Your task to perform on an android device: Open Wikipedia Image 0: 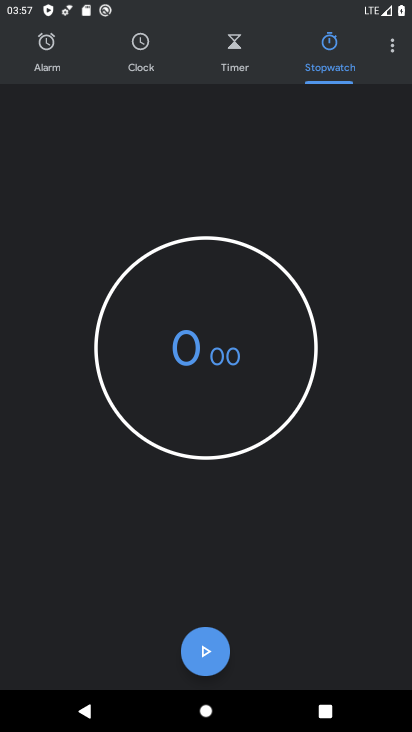
Step 0: drag from (220, 558) to (272, 228)
Your task to perform on an android device: Open Wikipedia Image 1: 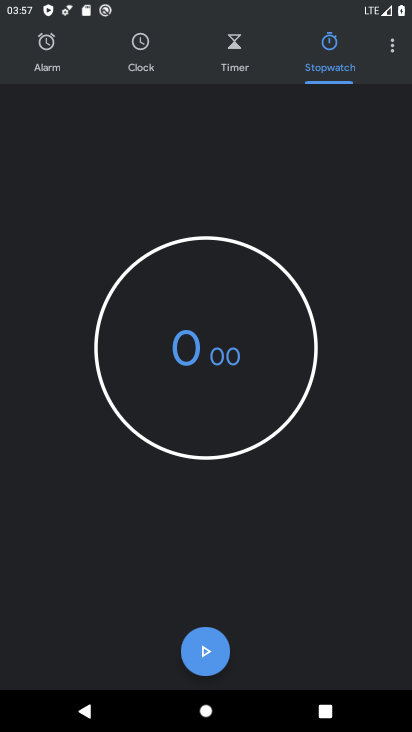
Step 1: click (394, 57)
Your task to perform on an android device: Open Wikipedia Image 2: 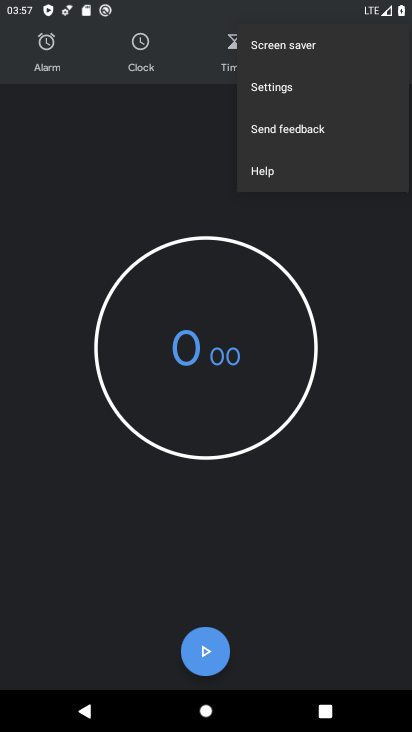
Step 2: press home button
Your task to perform on an android device: Open Wikipedia Image 3: 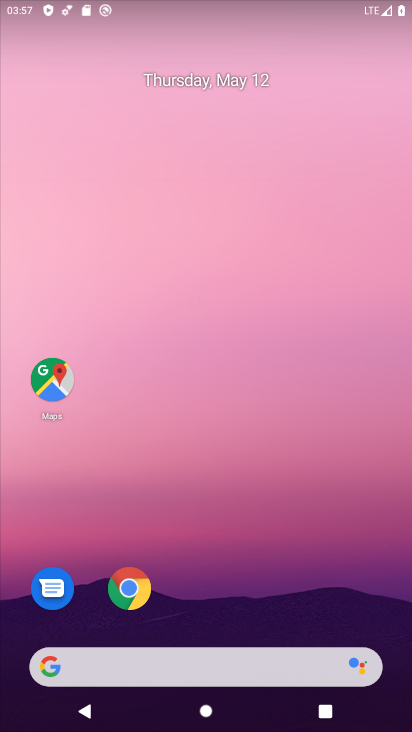
Step 3: drag from (214, 651) to (264, 186)
Your task to perform on an android device: Open Wikipedia Image 4: 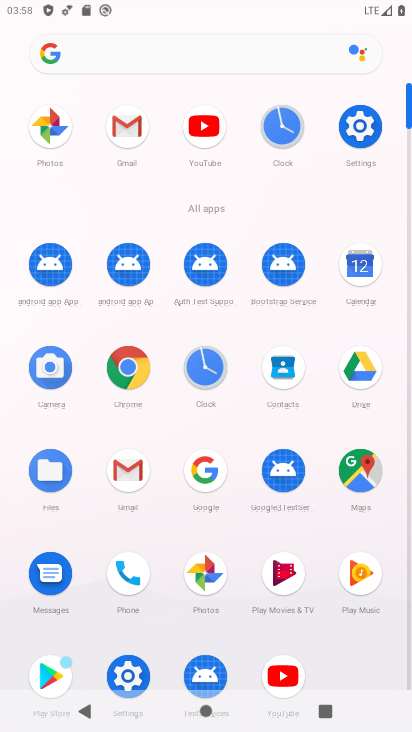
Step 4: click (124, 360)
Your task to perform on an android device: Open Wikipedia Image 5: 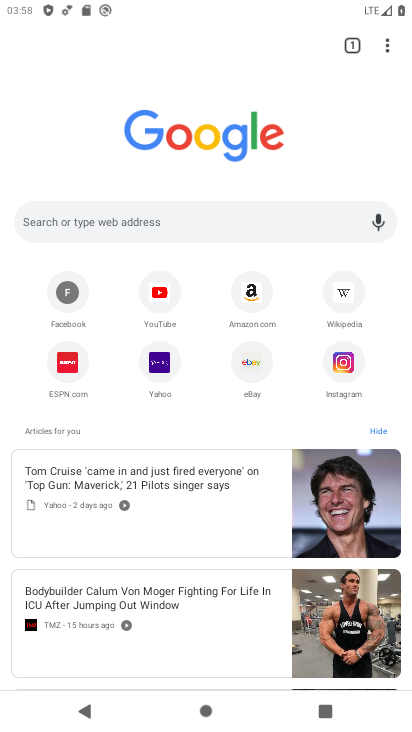
Step 5: click (355, 305)
Your task to perform on an android device: Open Wikipedia Image 6: 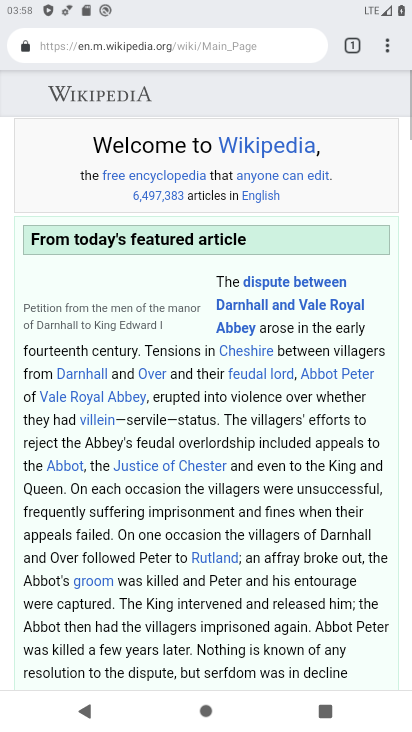
Step 6: task complete